Your task to perform on an android device: open app "Truecaller" (install if not already installed) Image 0: 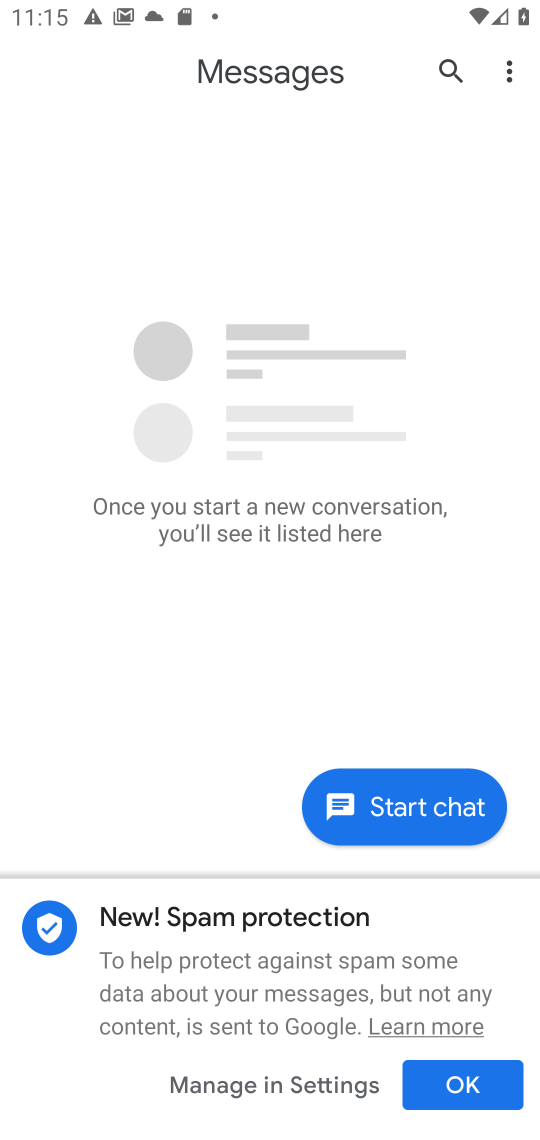
Step 0: press home button
Your task to perform on an android device: open app "Truecaller" (install if not already installed) Image 1: 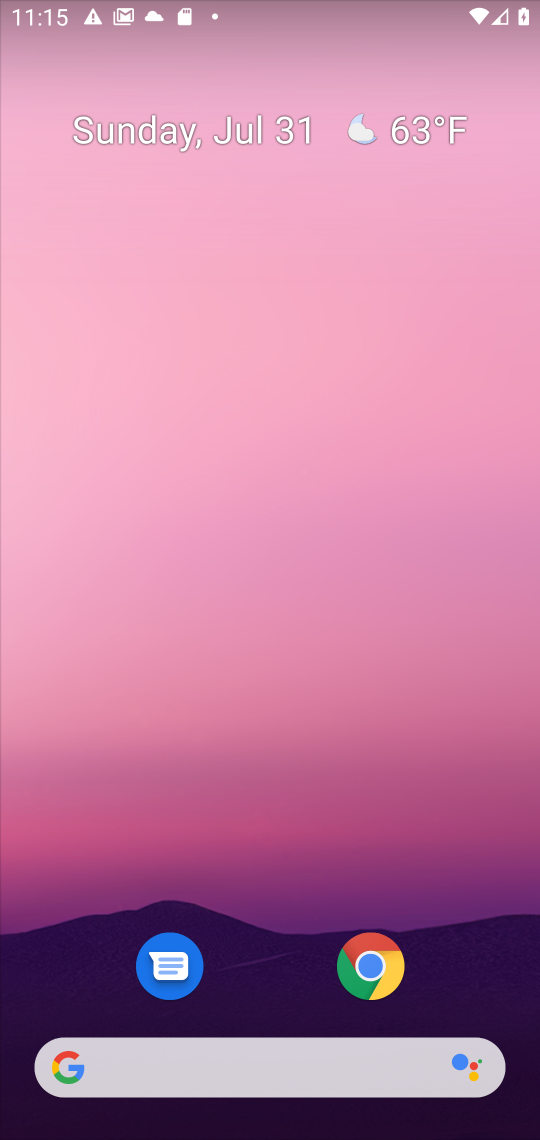
Step 1: drag from (244, 937) to (341, 0)
Your task to perform on an android device: open app "Truecaller" (install if not already installed) Image 2: 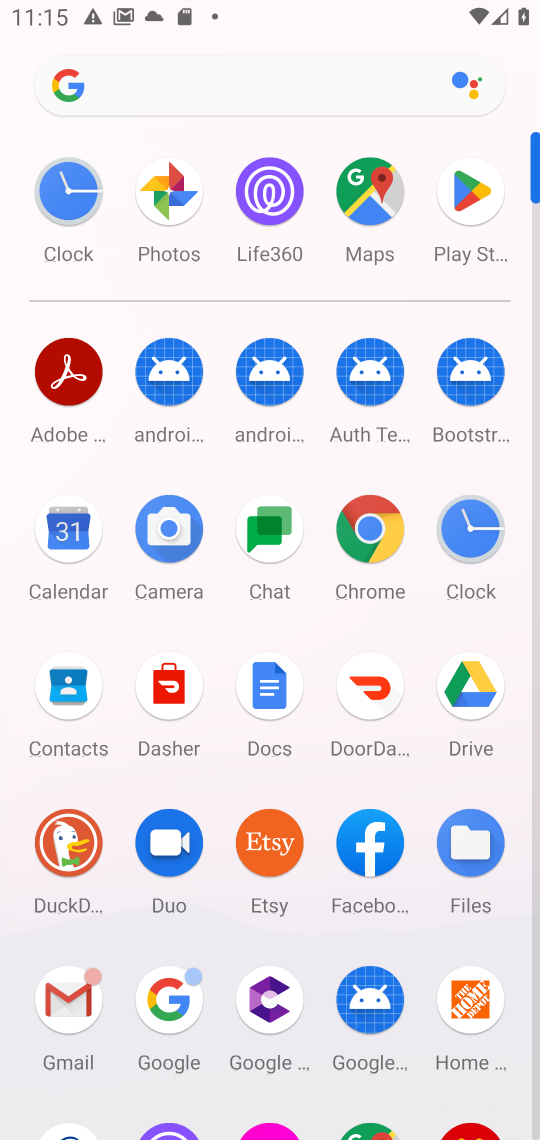
Step 2: click (466, 225)
Your task to perform on an android device: open app "Truecaller" (install if not already installed) Image 3: 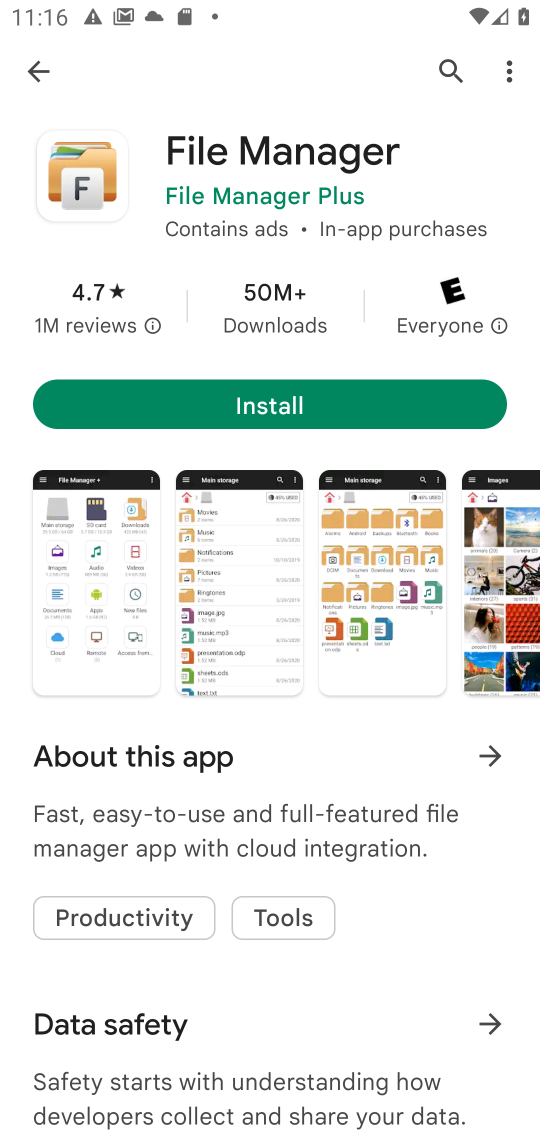
Step 3: click (49, 73)
Your task to perform on an android device: open app "Truecaller" (install if not already installed) Image 4: 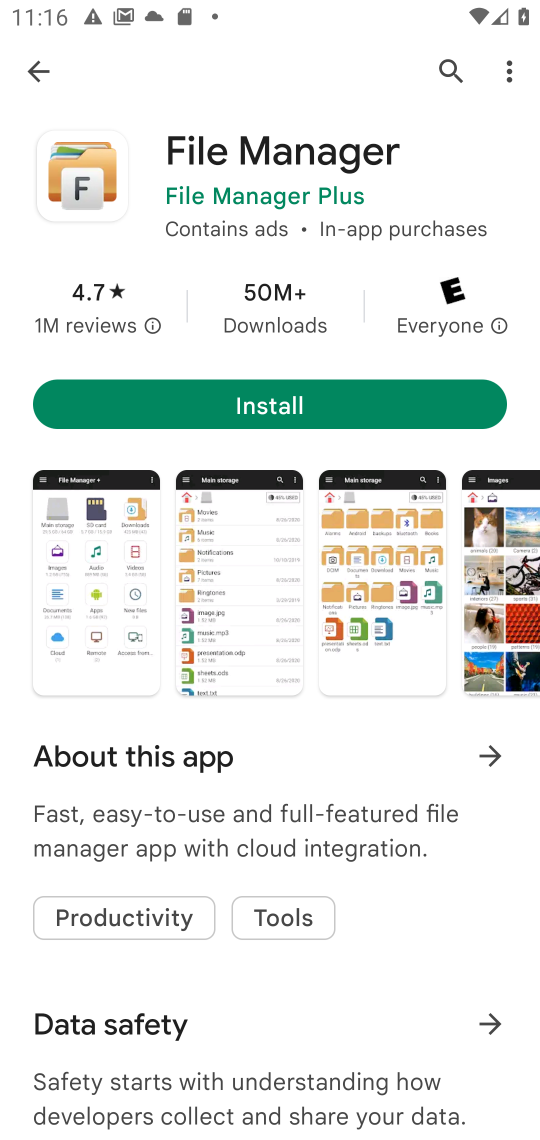
Step 4: click (41, 89)
Your task to perform on an android device: open app "Truecaller" (install if not already installed) Image 5: 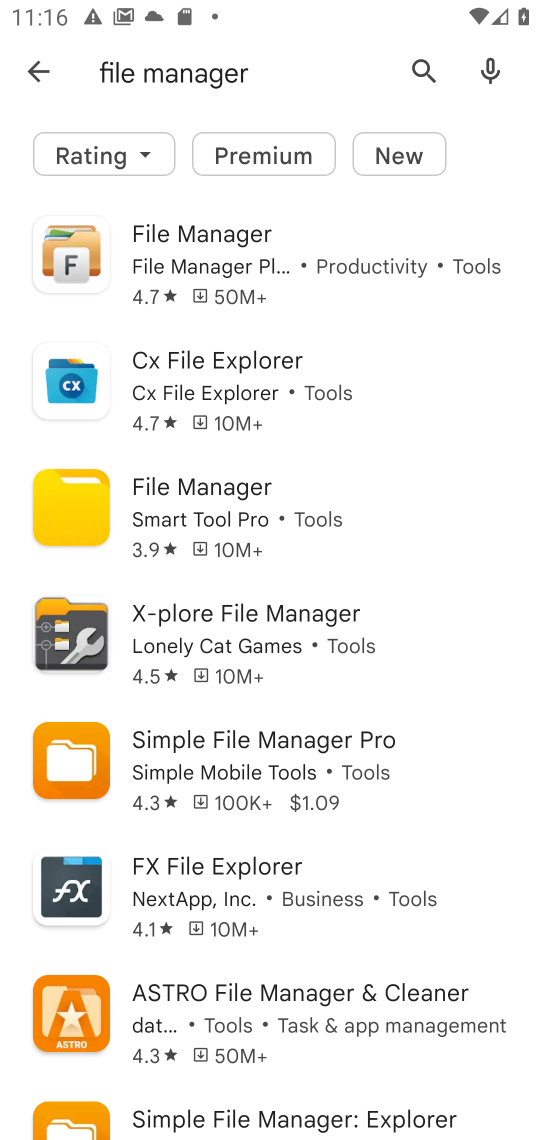
Step 5: click (244, 64)
Your task to perform on an android device: open app "Truecaller" (install if not already installed) Image 6: 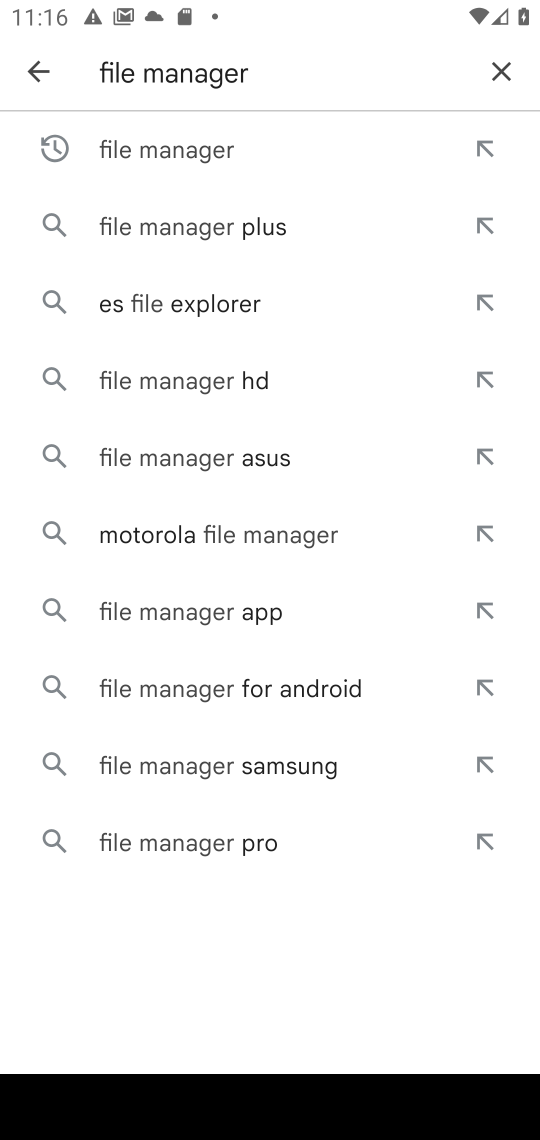
Step 6: click (512, 69)
Your task to perform on an android device: open app "Truecaller" (install if not already installed) Image 7: 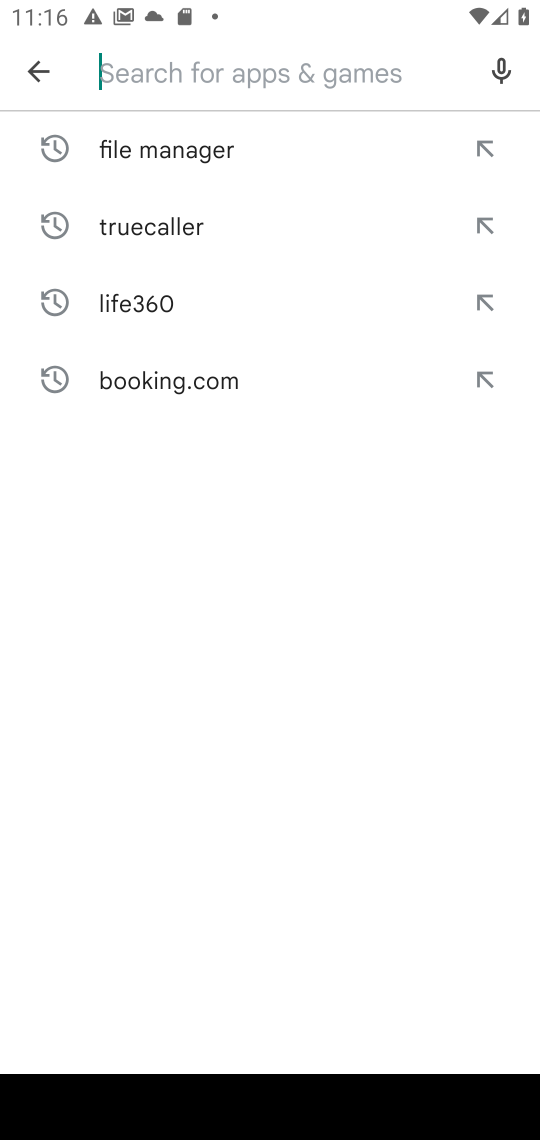
Step 7: type "truecaller"
Your task to perform on an android device: open app "Truecaller" (install if not already installed) Image 8: 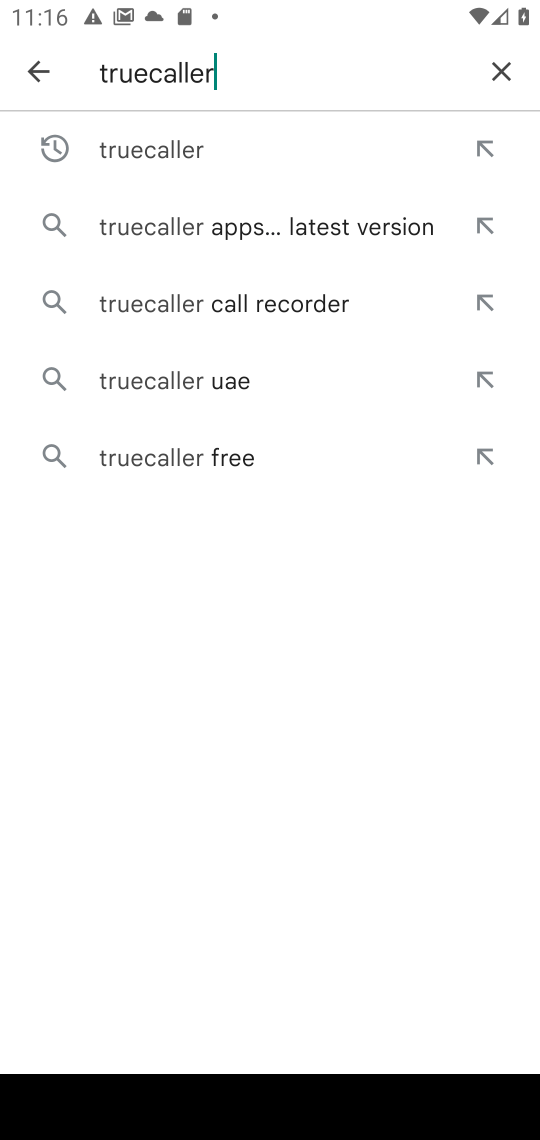
Step 8: click (193, 169)
Your task to perform on an android device: open app "Truecaller" (install if not already installed) Image 9: 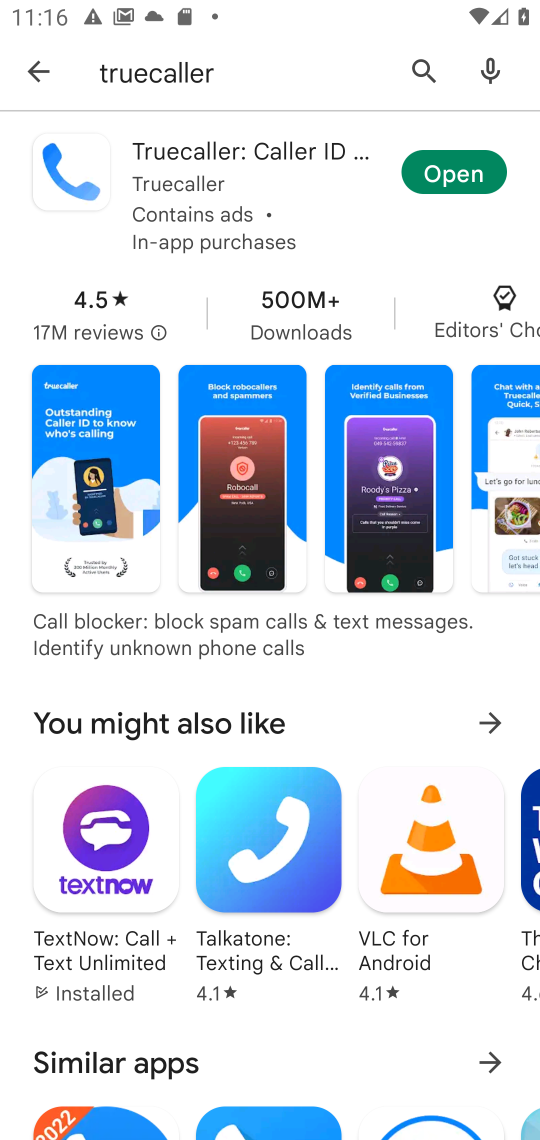
Step 9: click (437, 185)
Your task to perform on an android device: open app "Truecaller" (install if not already installed) Image 10: 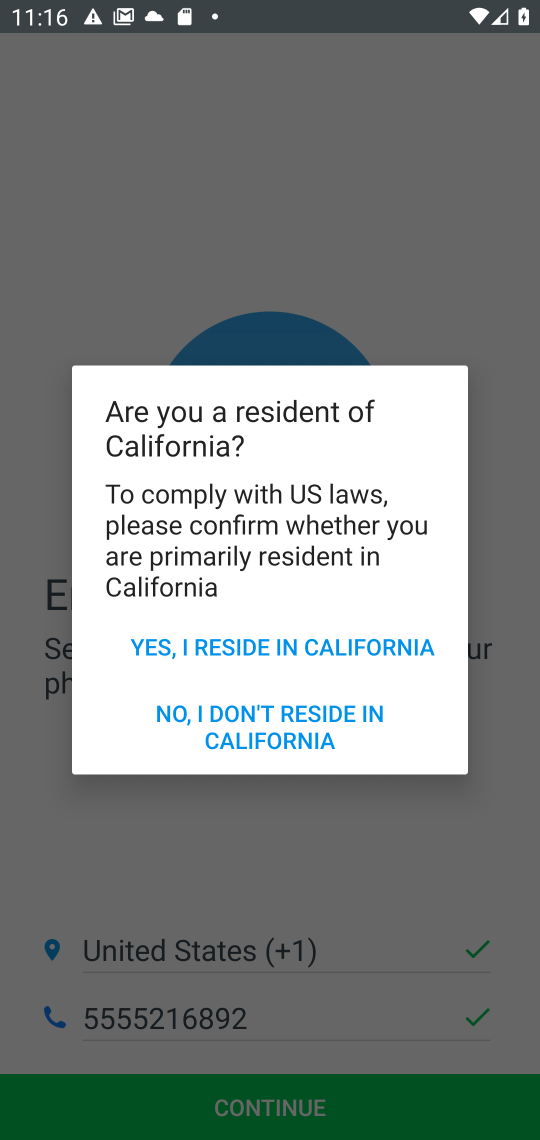
Step 10: click (316, 649)
Your task to perform on an android device: open app "Truecaller" (install if not already installed) Image 11: 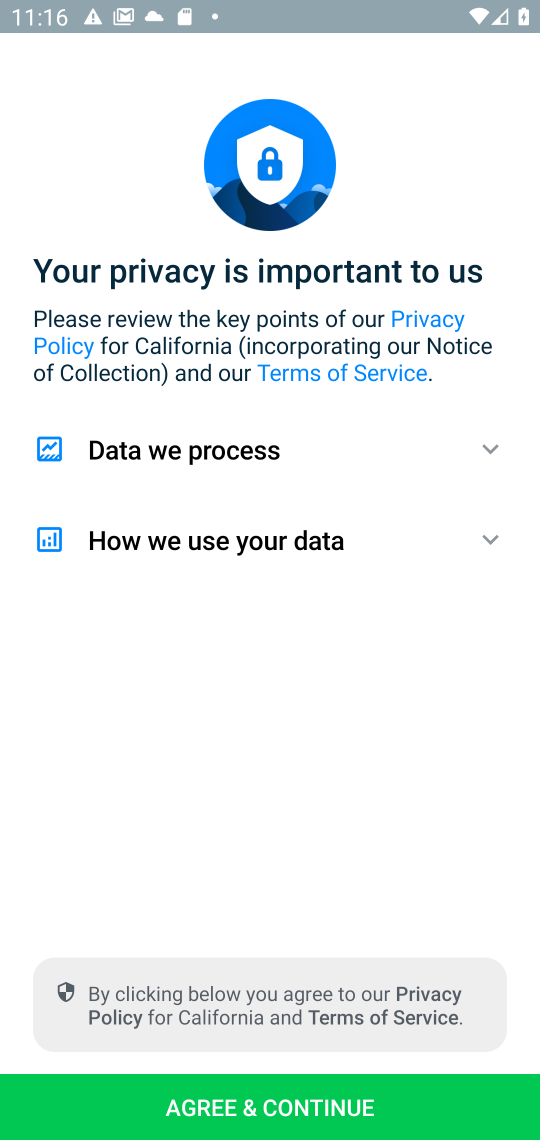
Step 11: task complete